Your task to perform on an android device: Go to Wikipedia Image 0: 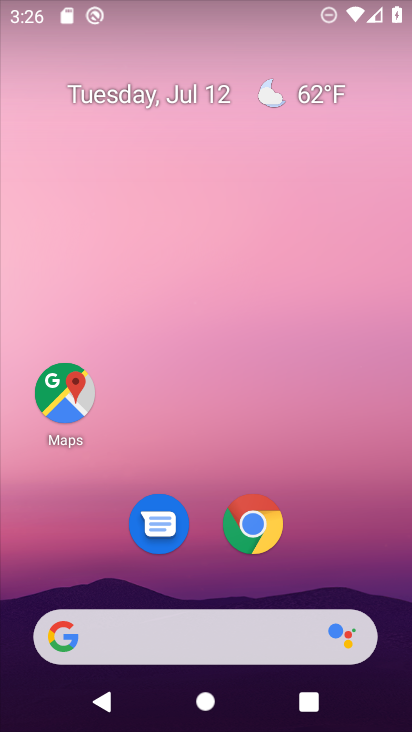
Step 0: click (273, 526)
Your task to perform on an android device: Go to Wikipedia Image 1: 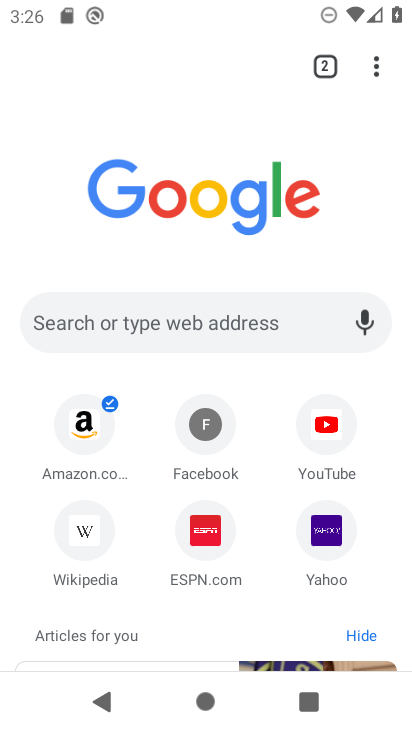
Step 1: click (90, 529)
Your task to perform on an android device: Go to Wikipedia Image 2: 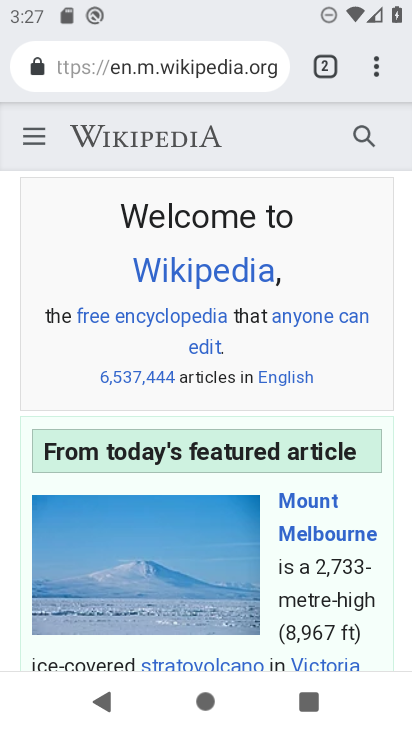
Step 2: task complete